Your task to perform on an android device: open sync settings in chrome Image 0: 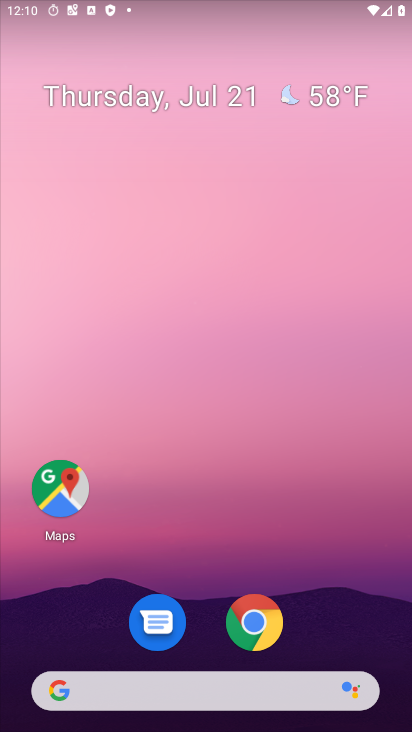
Step 0: click (242, 629)
Your task to perform on an android device: open sync settings in chrome Image 1: 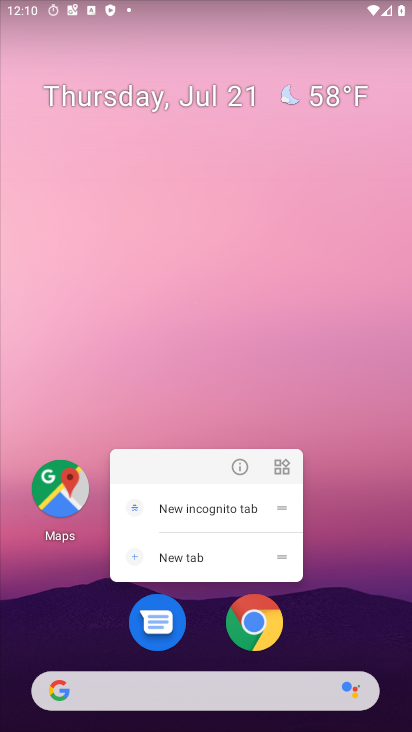
Step 1: click (260, 620)
Your task to perform on an android device: open sync settings in chrome Image 2: 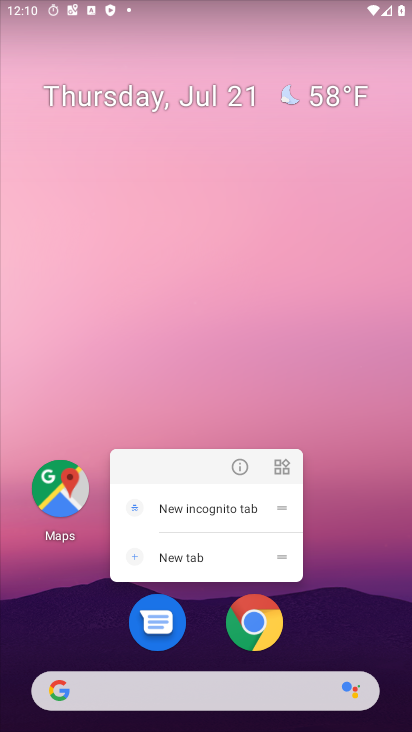
Step 2: click (235, 635)
Your task to perform on an android device: open sync settings in chrome Image 3: 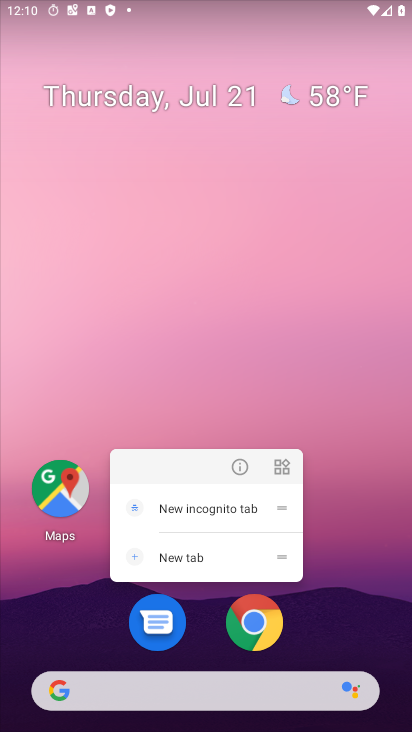
Step 3: click (250, 607)
Your task to perform on an android device: open sync settings in chrome Image 4: 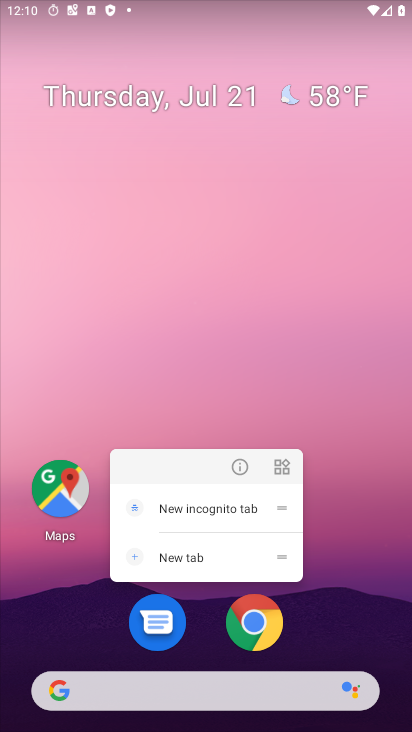
Step 4: click (250, 607)
Your task to perform on an android device: open sync settings in chrome Image 5: 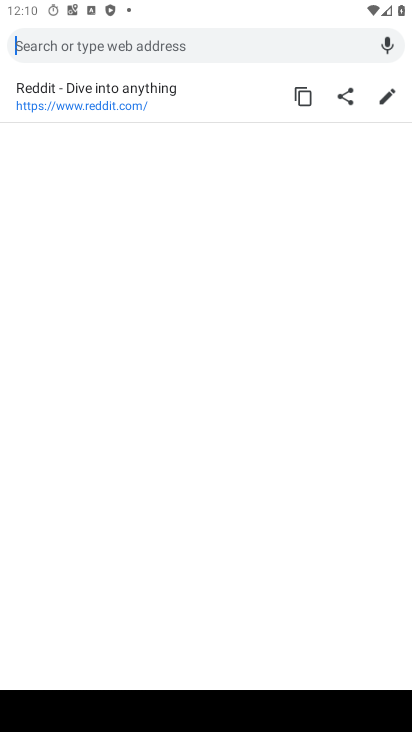
Step 5: task complete